Your task to perform on an android device: Empty the shopping cart on target. Add usb-a to usb-b to the cart on target Image 0: 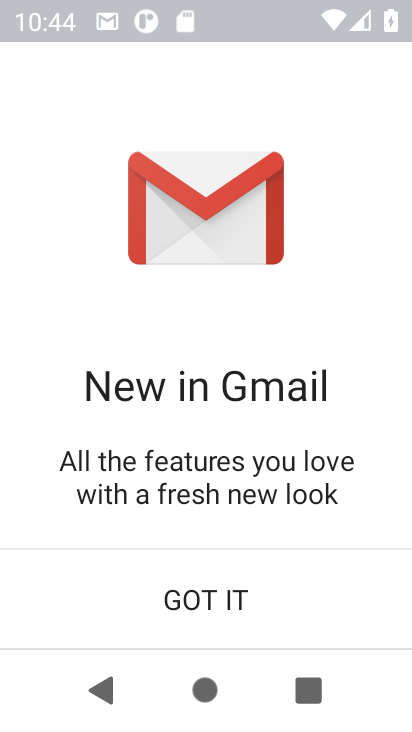
Step 0: press home button
Your task to perform on an android device: Empty the shopping cart on target. Add usb-a to usb-b to the cart on target Image 1: 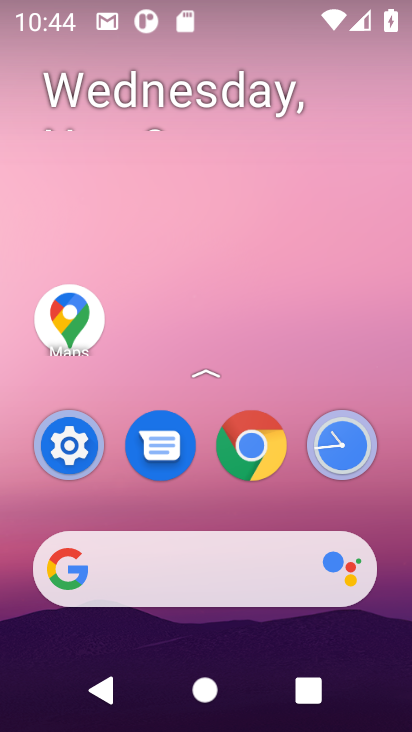
Step 1: click (252, 428)
Your task to perform on an android device: Empty the shopping cart on target. Add usb-a to usb-b to the cart on target Image 2: 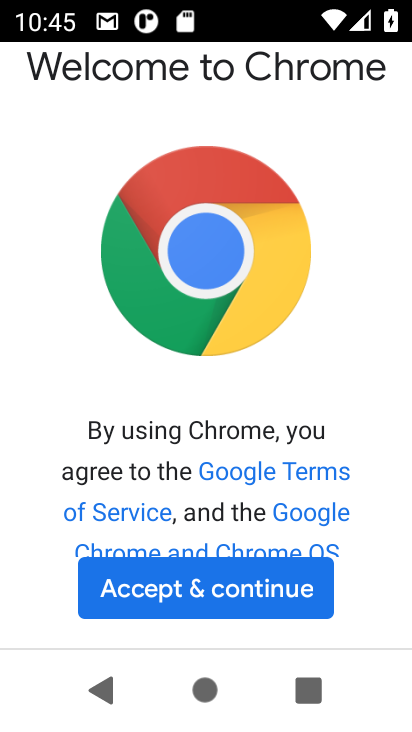
Step 2: click (262, 609)
Your task to perform on an android device: Empty the shopping cart on target. Add usb-a to usb-b to the cart on target Image 3: 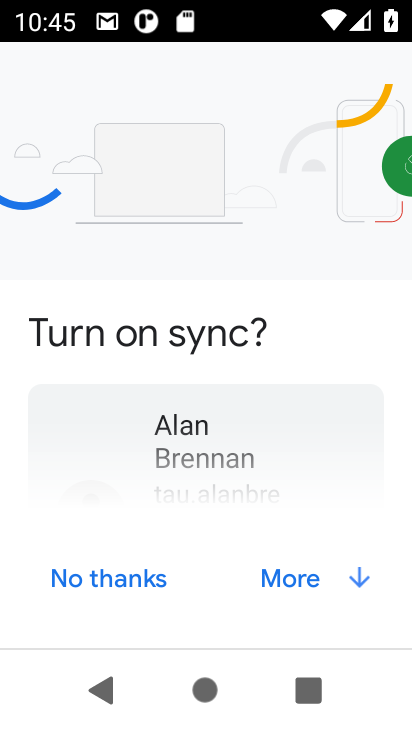
Step 3: click (354, 576)
Your task to perform on an android device: Empty the shopping cart on target. Add usb-a to usb-b to the cart on target Image 4: 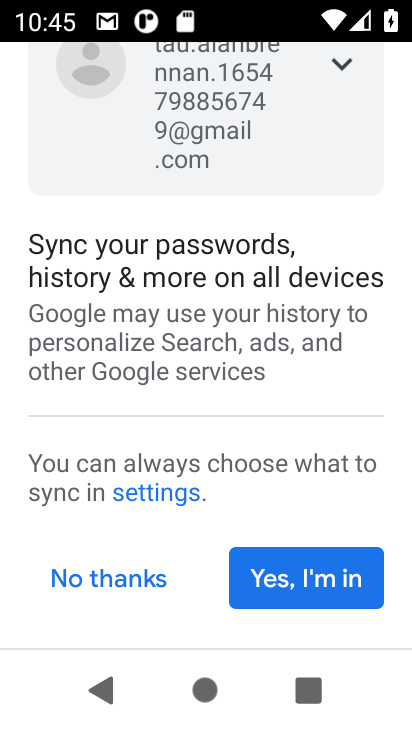
Step 4: click (304, 586)
Your task to perform on an android device: Empty the shopping cart on target. Add usb-a to usb-b to the cart on target Image 5: 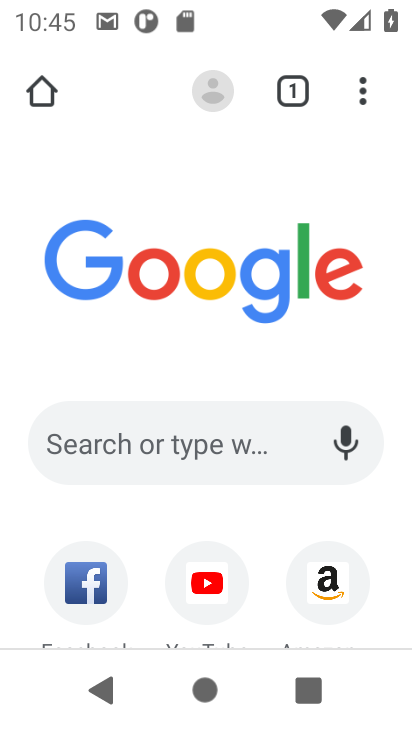
Step 5: click (214, 441)
Your task to perform on an android device: Empty the shopping cart on target. Add usb-a to usb-b to the cart on target Image 6: 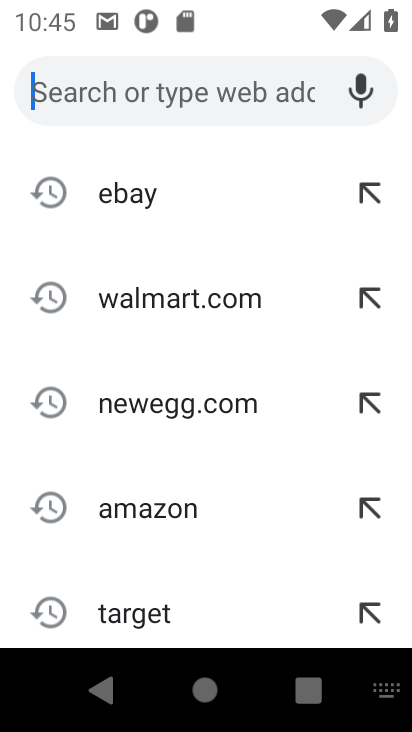
Step 6: click (130, 613)
Your task to perform on an android device: Empty the shopping cart on target. Add usb-a to usb-b to the cart on target Image 7: 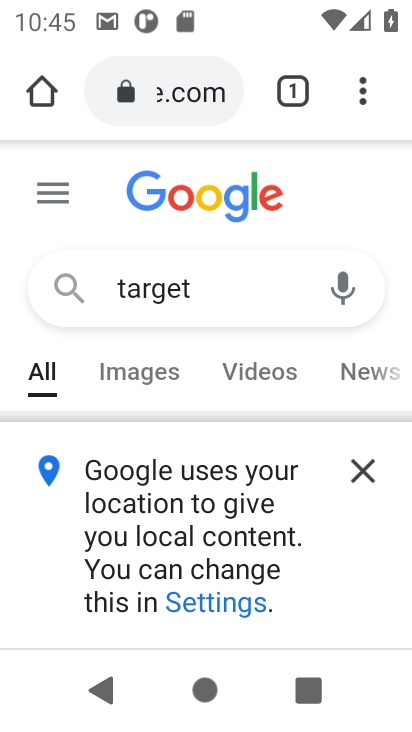
Step 7: click (360, 468)
Your task to perform on an android device: Empty the shopping cart on target. Add usb-a to usb-b to the cart on target Image 8: 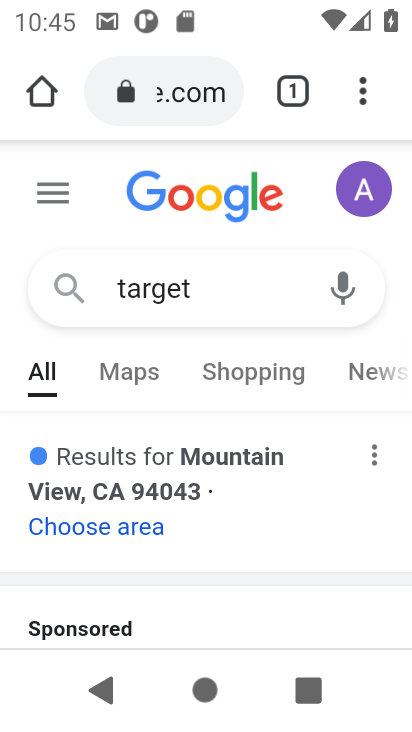
Step 8: drag from (231, 504) to (334, 115)
Your task to perform on an android device: Empty the shopping cart on target. Add usb-a to usb-b to the cart on target Image 9: 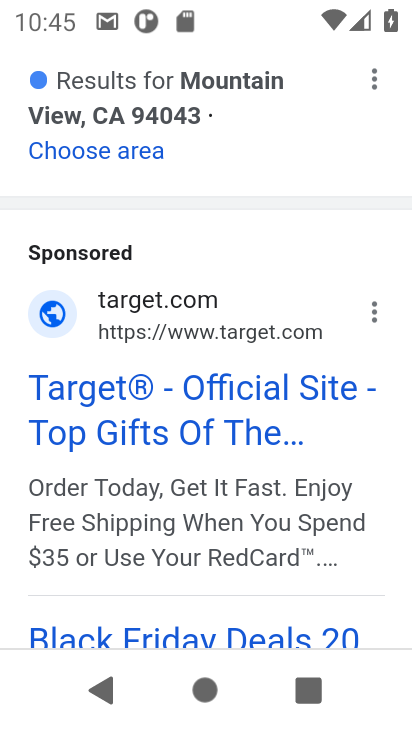
Step 9: click (195, 389)
Your task to perform on an android device: Empty the shopping cart on target. Add usb-a to usb-b to the cart on target Image 10: 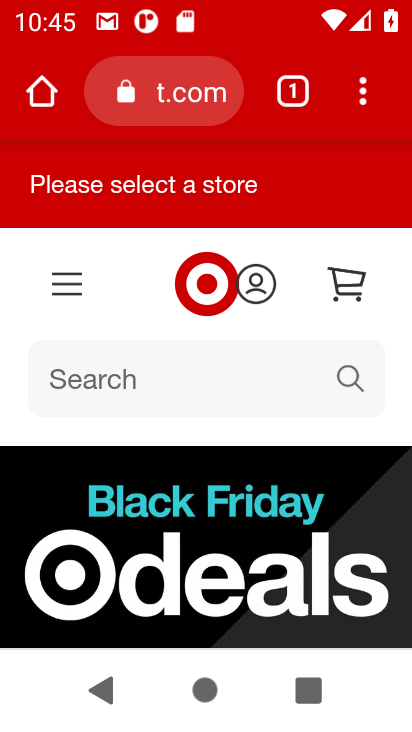
Step 10: click (133, 374)
Your task to perform on an android device: Empty the shopping cart on target. Add usb-a to usb-b to the cart on target Image 11: 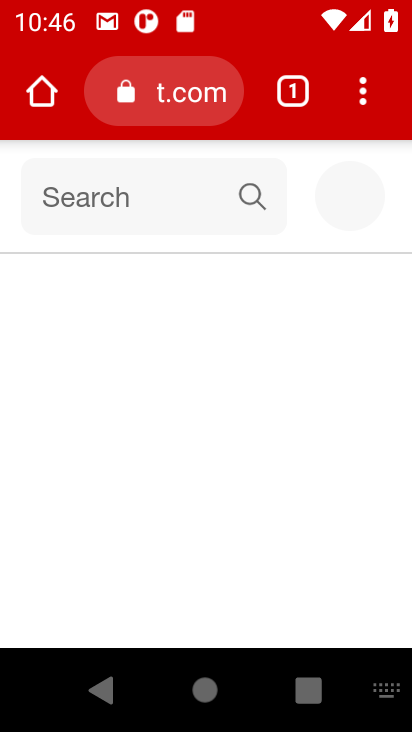
Step 11: type "usb-a to usb-b"
Your task to perform on an android device: Empty the shopping cart on target. Add usb-a to usb-b to the cart on target Image 12: 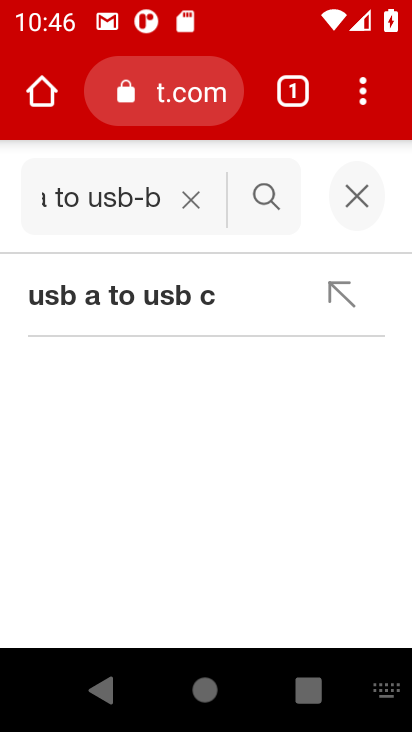
Step 12: click (187, 301)
Your task to perform on an android device: Empty the shopping cart on target. Add usb-a to usb-b to the cart on target Image 13: 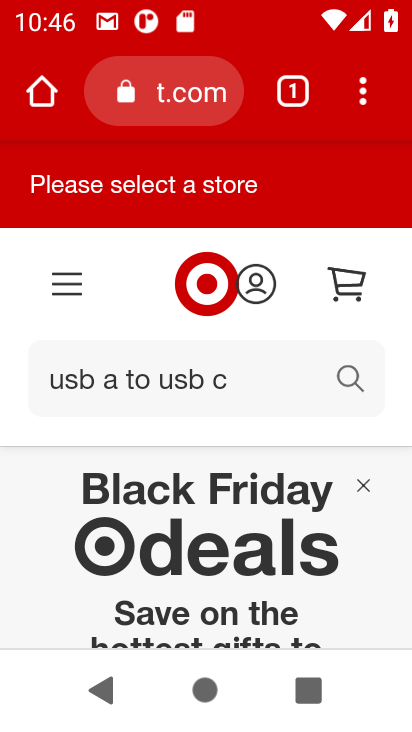
Step 13: drag from (102, 507) to (227, 137)
Your task to perform on an android device: Empty the shopping cart on target. Add usb-a to usb-b to the cart on target Image 14: 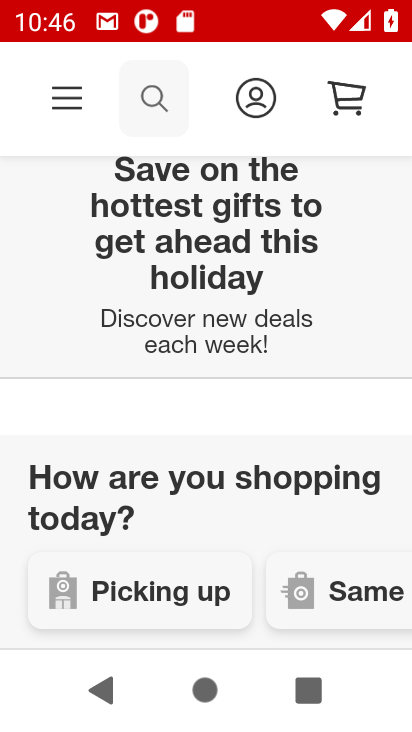
Step 14: drag from (254, 501) to (359, 159)
Your task to perform on an android device: Empty the shopping cart on target. Add usb-a to usb-b to the cart on target Image 15: 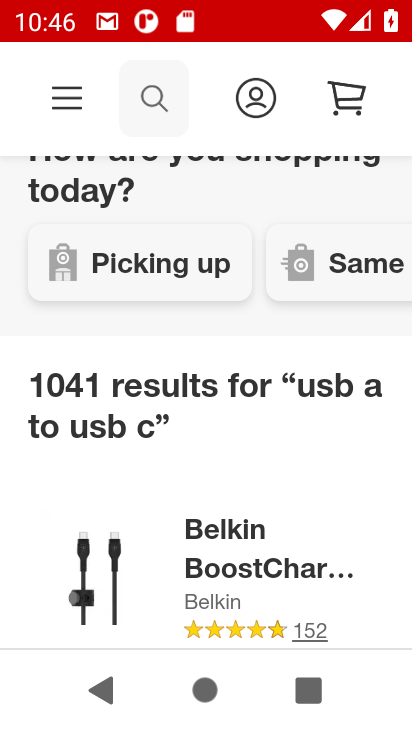
Step 15: drag from (304, 520) to (408, 278)
Your task to perform on an android device: Empty the shopping cart on target. Add usb-a to usb-b to the cart on target Image 16: 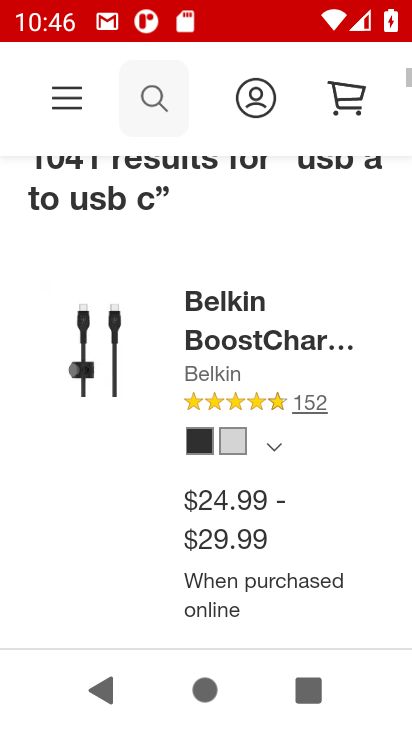
Step 16: drag from (279, 409) to (357, 3)
Your task to perform on an android device: Empty the shopping cart on target. Add usb-a to usb-b to the cart on target Image 17: 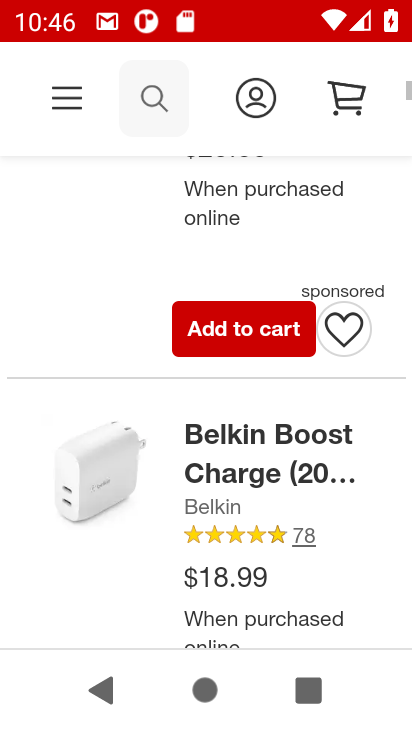
Step 17: drag from (270, 468) to (344, 212)
Your task to perform on an android device: Empty the shopping cart on target. Add usb-a to usb-b to the cart on target Image 18: 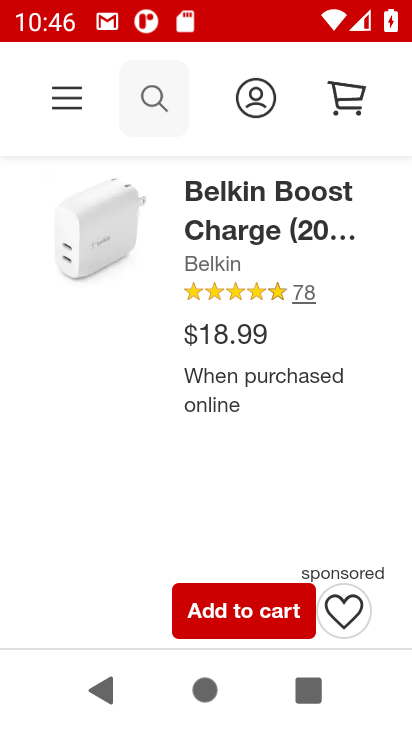
Step 18: drag from (235, 573) to (378, 195)
Your task to perform on an android device: Empty the shopping cart on target. Add usb-a to usb-b to the cart on target Image 19: 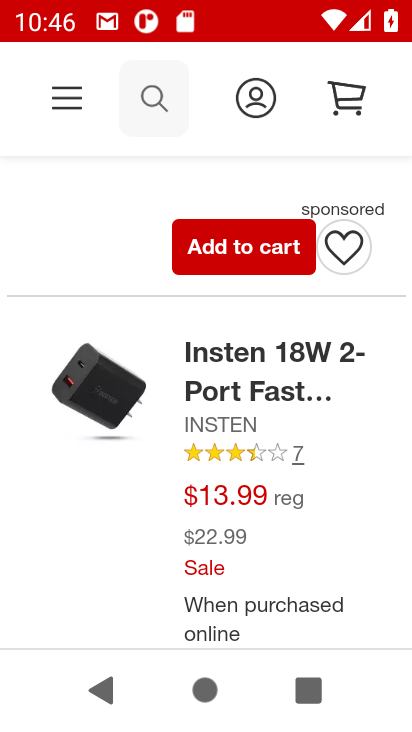
Step 19: drag from (275, 416) to (370, 140)
Your task to perform on an android device: Empty the shopping cart on target. Add usb-a to usb-b to the cart on target Image 20: 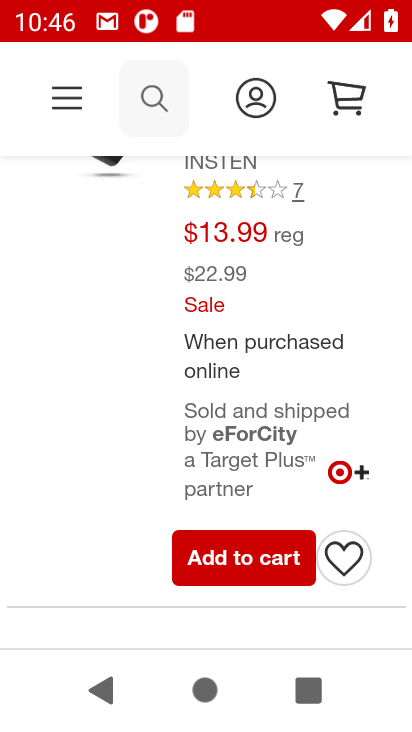
Step 20: drag from (256, 399) to (322, 130)
Your task to perform on an android device: Empty the shopping cart on target. Add usb-a to usb-b to the cart on target Image 21: 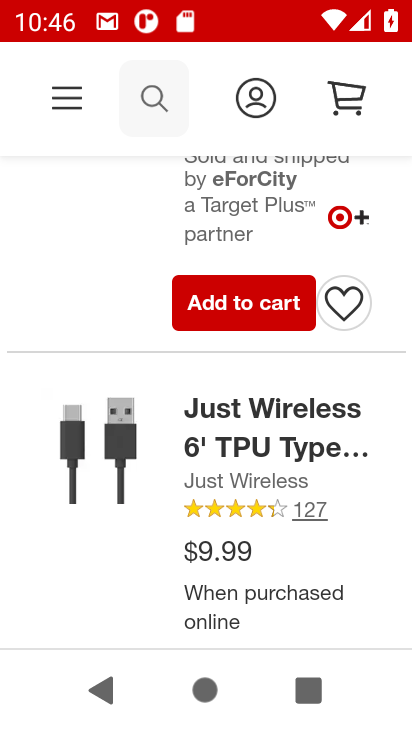
Step 21: click (262, 292)
Your task to perform on an android device: Empty the shopping cart on target. Add usb-a to usb-b to the cart on target Image 22: 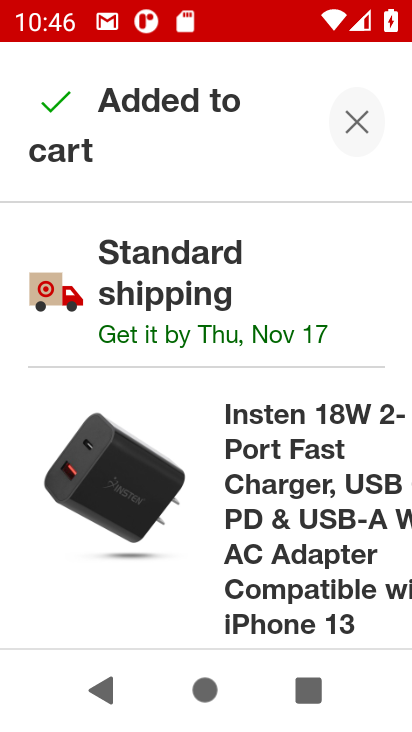
Step 22: task complete